Your task to perform on an android device: toggle airplane mode Image 0: 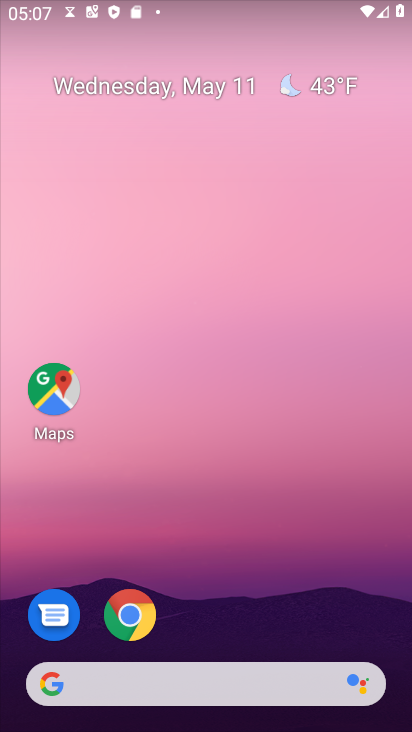
Step 0: drag from (245, 509) to (197, 49)
Your task to perform on an android device: toggle airplane mode Image 1: 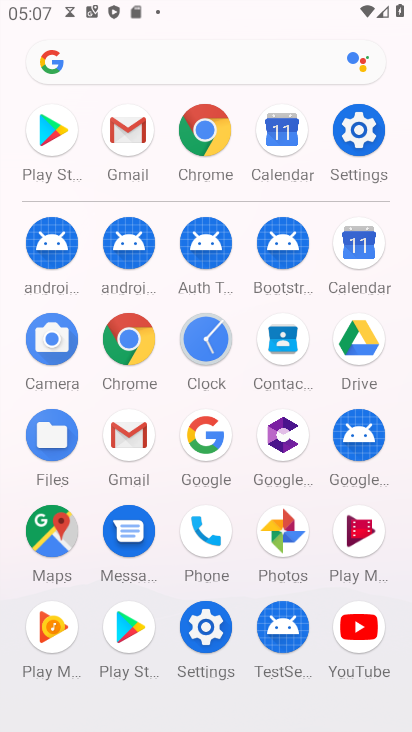
Step 1: drag from (8, 499) to (0, 132)
Your task to perform on an android device: toggle airplane mode Image 2: 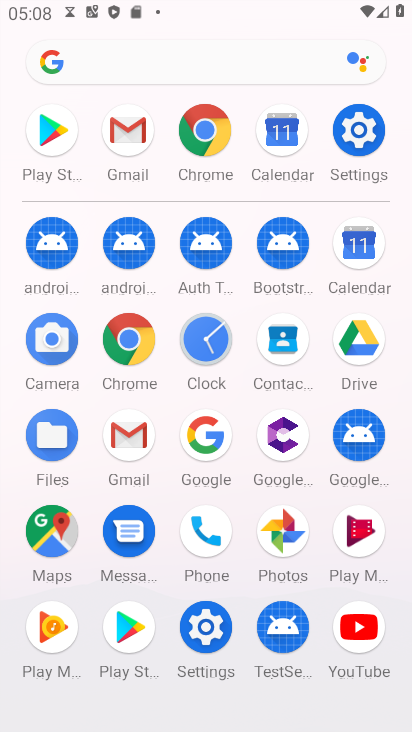
Step 2: click (207, 626)
Your task to perform on an android device: toggle airplane mode Image 3: 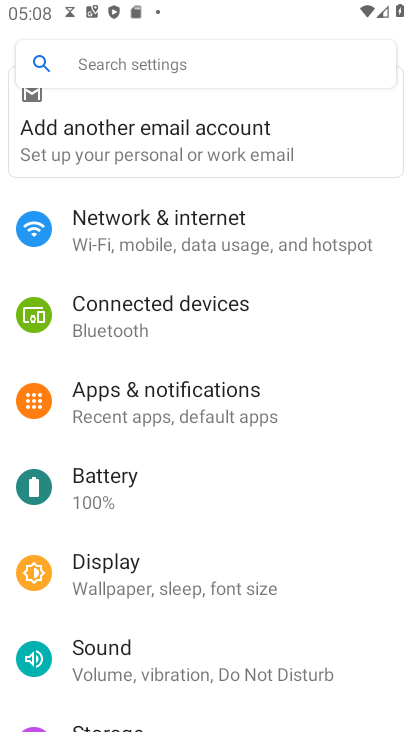
Step 3: click (226, 234)
Your task to perform on an android device: toggle airplane mode Image 4: 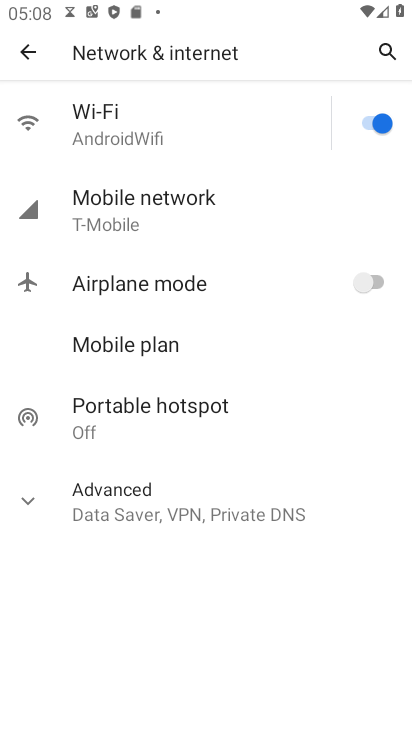
Step 4: click (9, 505)
Your task to perform on an android device: toggle airplane mode Image 5: 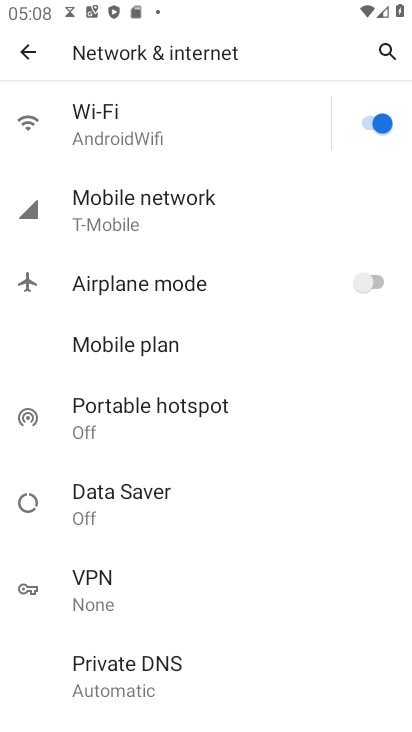
Step 5: click (370, 277)
Your task to perform on an android device: toggle airplane mode Image 6: 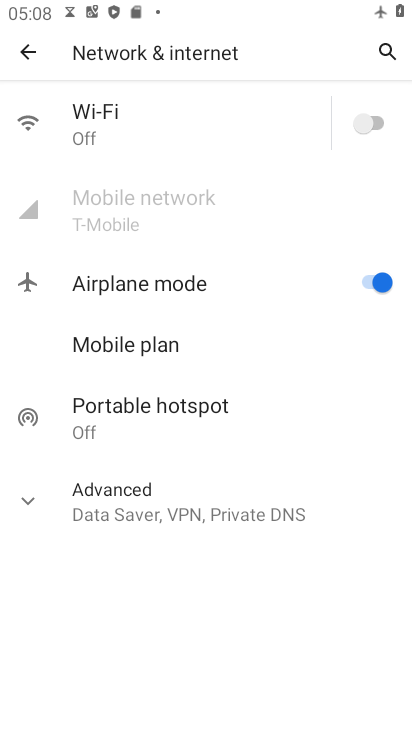
Step 6: task complete